Your task to perform on an android device: turn on bluetooth scan Image 0: 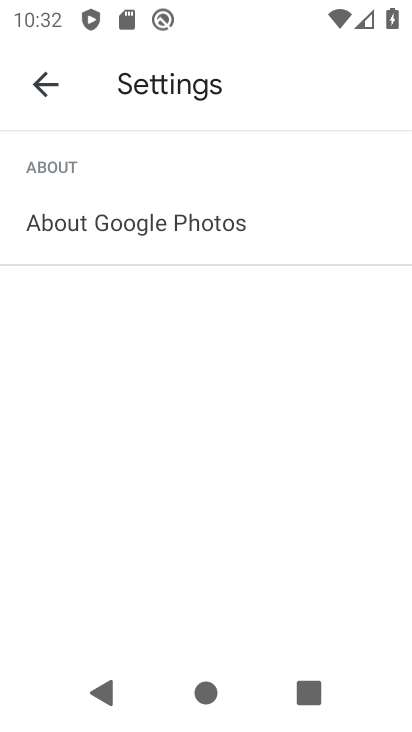
Step 0: press back button
Your task to perform on an android device: turn on bluetooth scan Image 1: 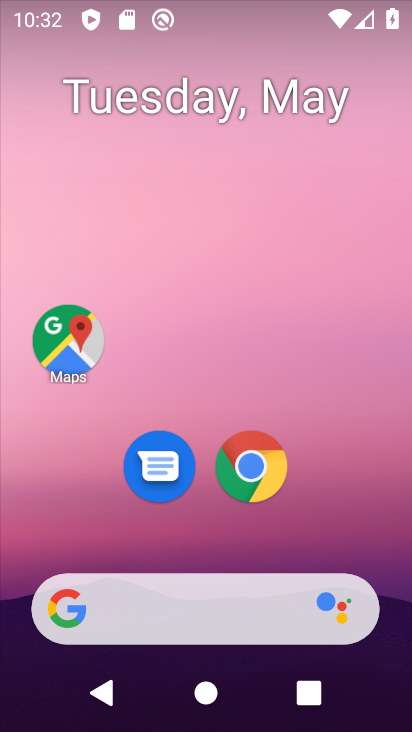
Step 1: drag from (178, 469) to (225, 96)
Your task to perform on an android device: turn on bluetooth scan Image 2: 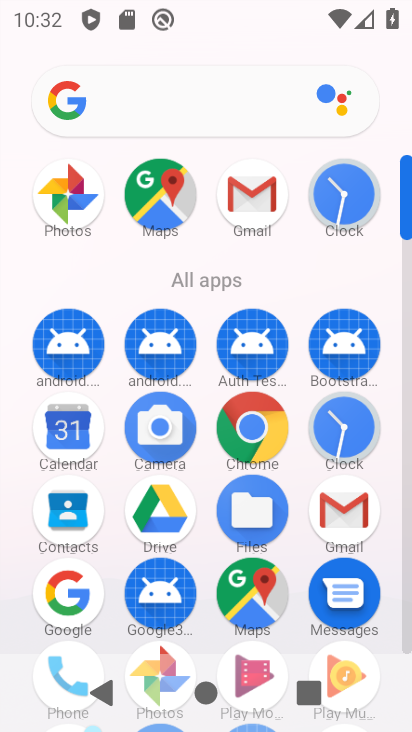
Step 2: drag from (180, 581) to (234, 89)
Your task to perform on an android device: turn on bluetooth scan Image 3: 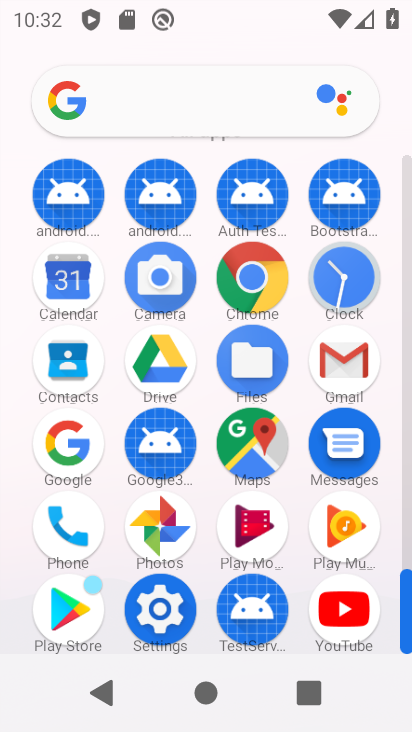
Step 3: click (150, 600)
Your task to perform on an android device: turn on bluetooth scan Image 4: 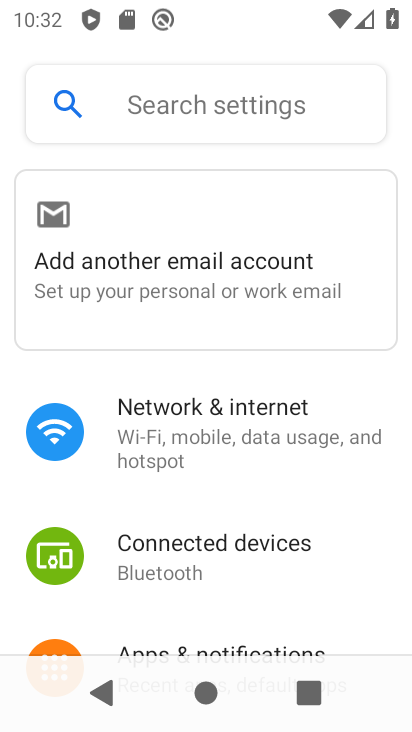
Step 4: click (175, 547)
Your task to perform on an android device: turn on bluetooth scan Image 5: 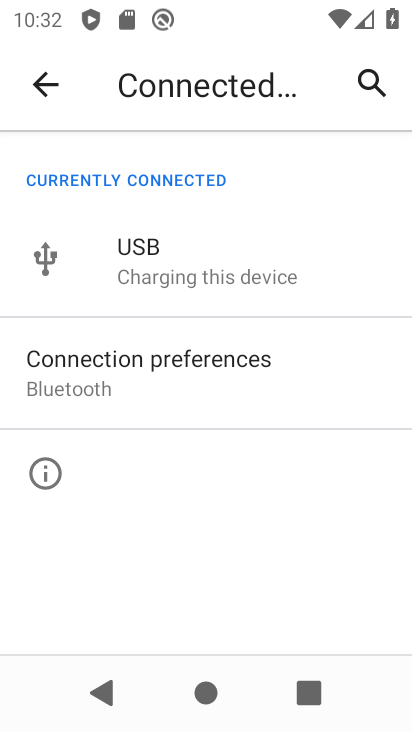
Step 5: click (95, 367)
Your task to perform on an android device: turn on bluetooth scan Image 6: 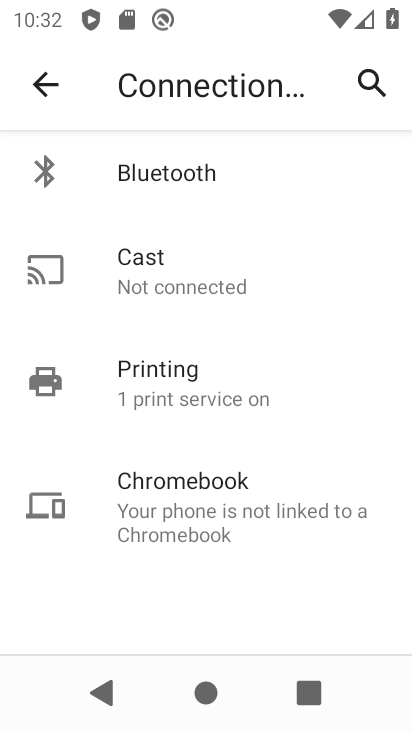
Step 6: click (191, 176)
Your task to perform on an android device: turn on bluetooth scan Image 7: 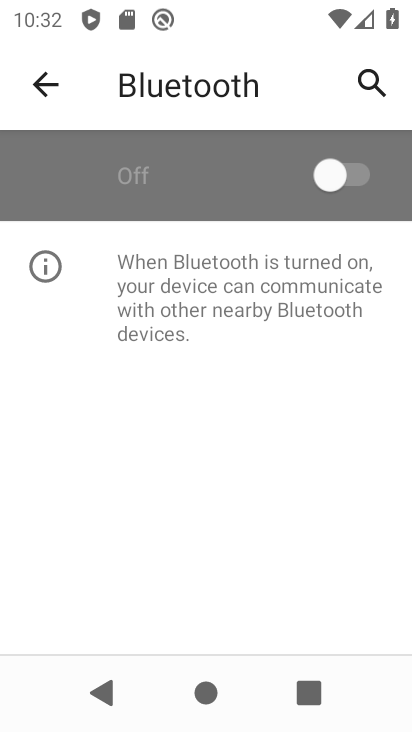
Step 7: click (334, 175)
Your task to perform on an android device: turn on bluetooth scan Image 8: 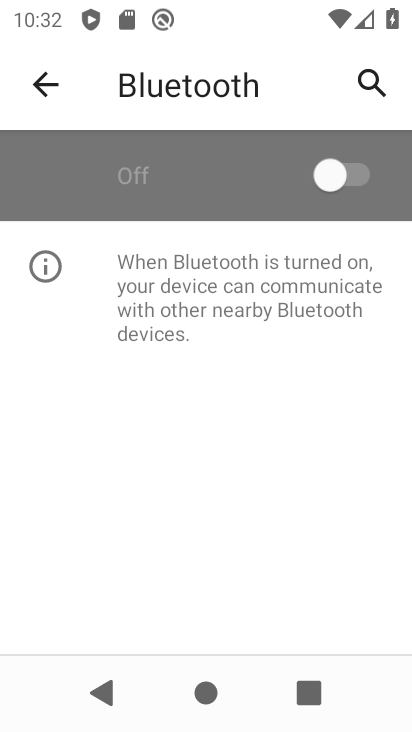
Step 8: task complete